Your task to perform on an android device: set the timer Image 0: 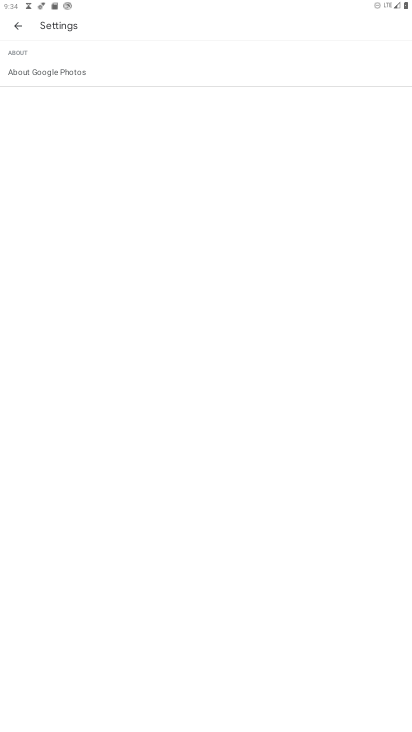
Step 0: press home button
Your task to perform on an android device: set the timer Image 1: 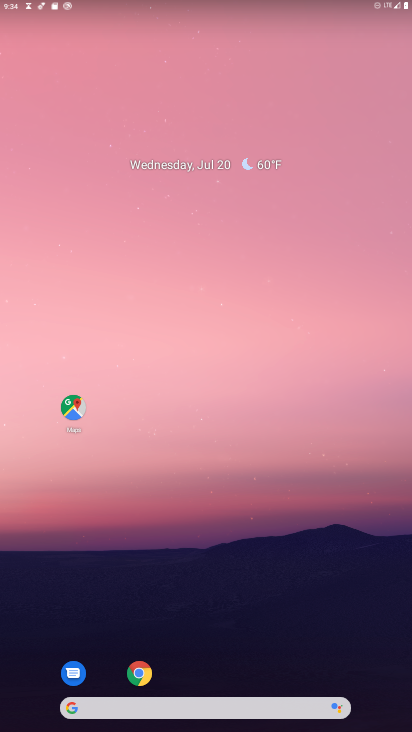
Step 1: drag from (199, 669) to (167, 231)
Your task to perform on an android device: set the timer Image 2: 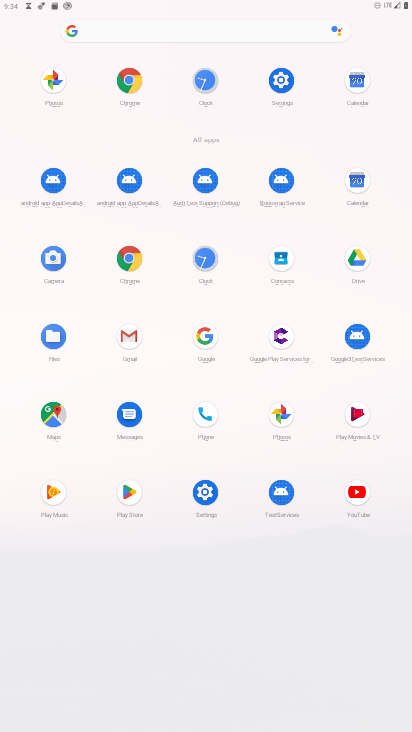
Step 2: click (200, 91)
Your task to perform on an android device: set the timer Image 3: 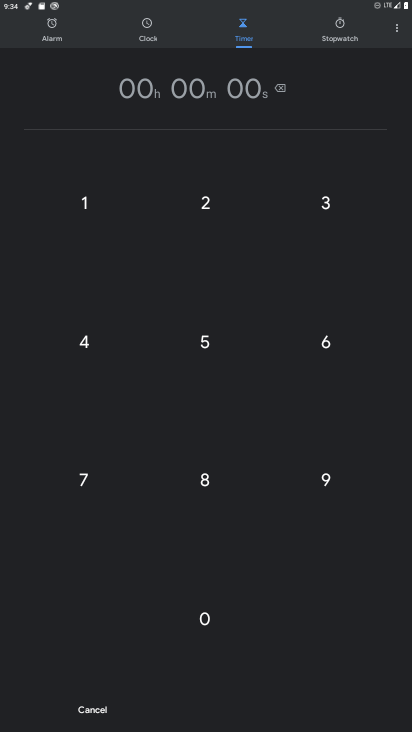
Step 3: click (208, 207)
Your task to perform on an android device: set the timer Image 4: 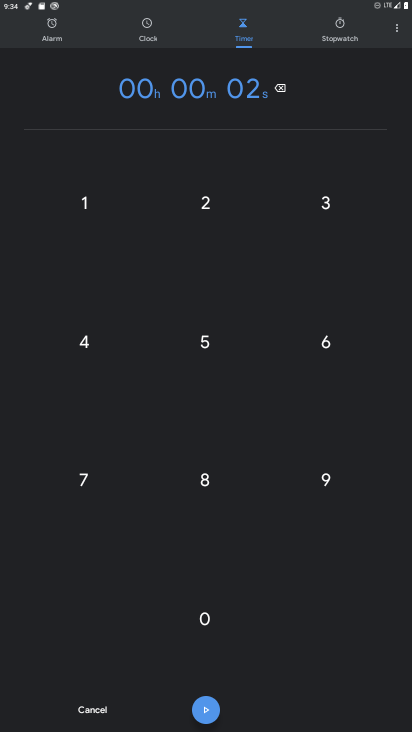
Step 4: click (209, 613)
Your task to perform on an android device: set the timer Image 5: 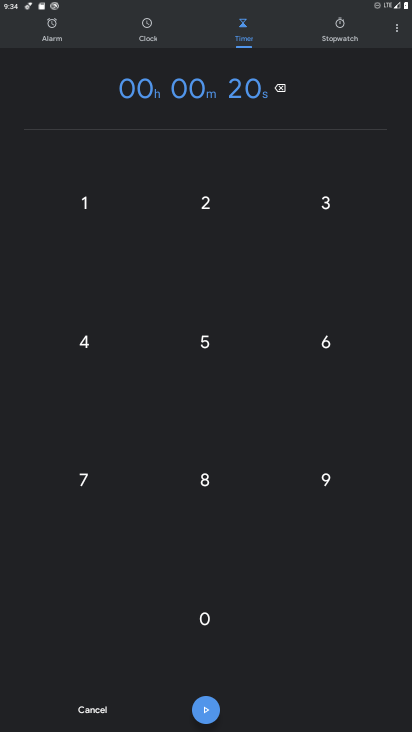
Step 5: click (208, 205)
Your task to perform on an android device: set the timer Image 6: 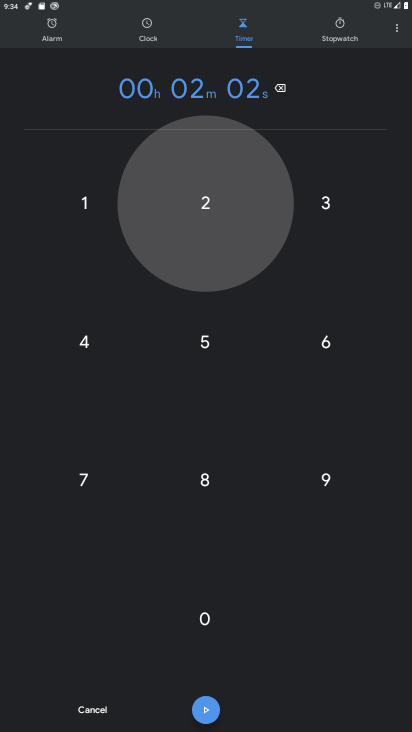
Step 6: click (214, 621)
Your task to perform on an android device: set the timer Image 7: 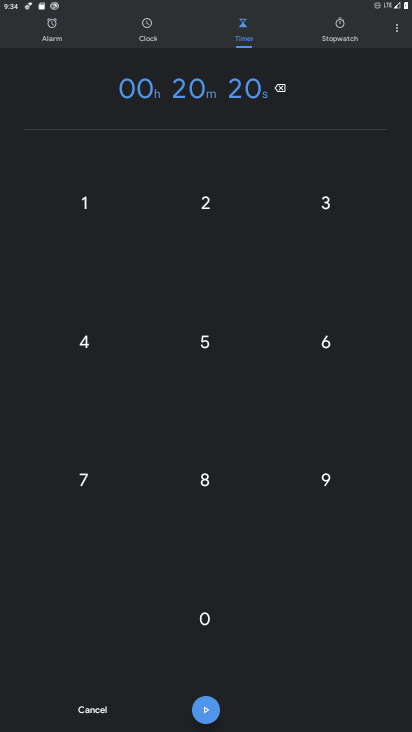
Step 7: click (202, 717)
Your task to perform on an android device: set the timer Image 8: 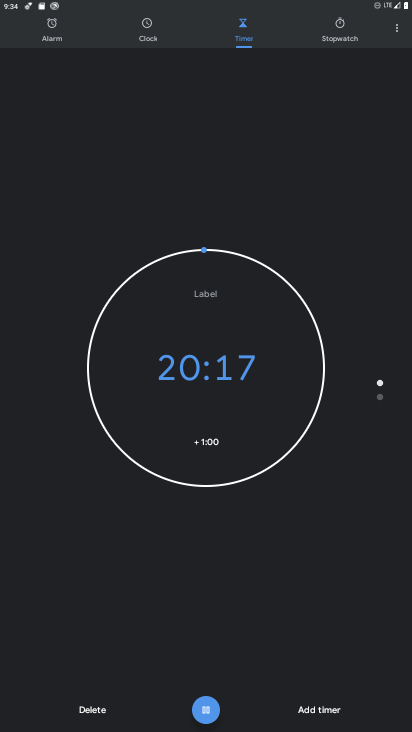
Step 8: click (297, 712)
Your task to perform on an android device: set the timer Image 9: 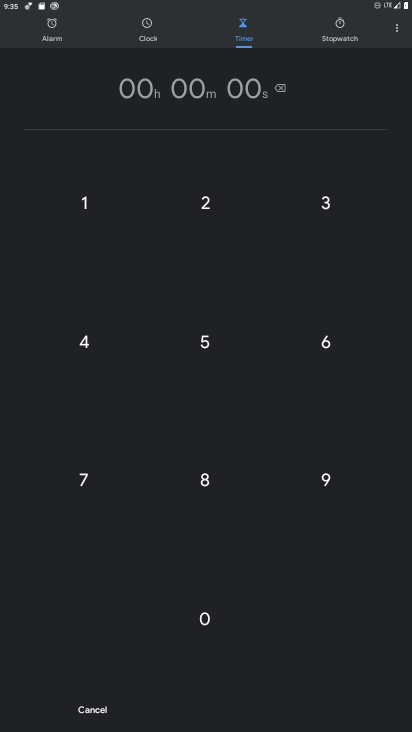
Step 9: task complete